Your task to perform on an android device: check storage Image 0: 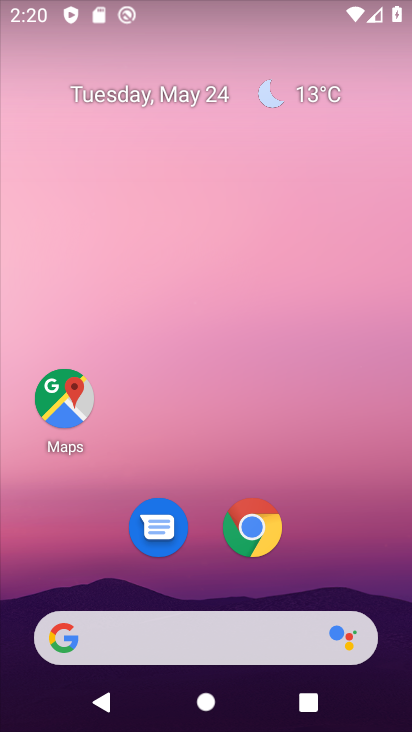
Step 0: drag from (311, 565) to (337, 87)
Your task to perform on an android device: check storage Image 1: 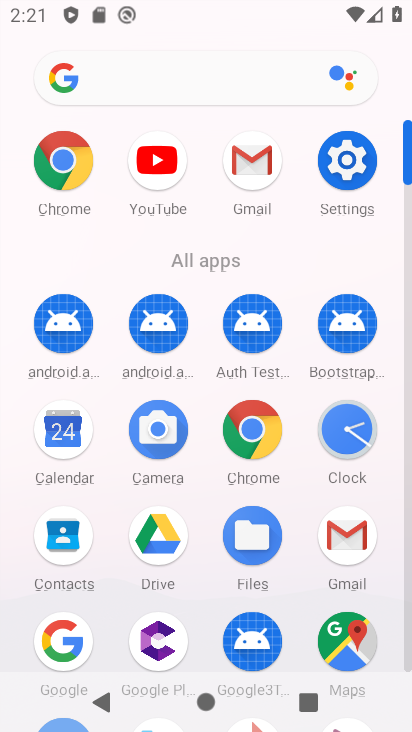
Step 1: click (344, 166)
Your task to perform on an android device: check storage Image 2: 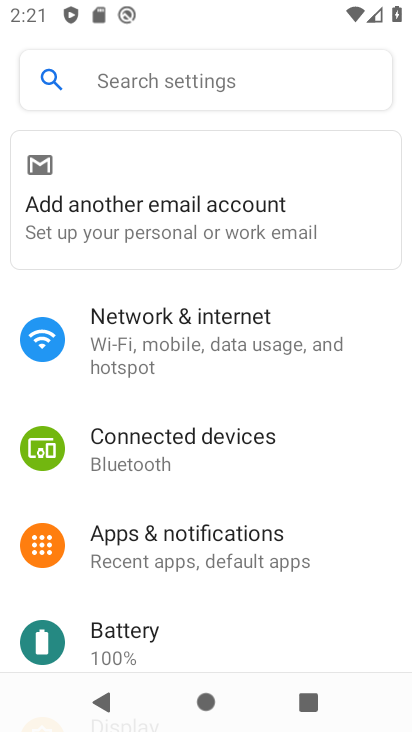
Step 2: drag from (151, 570) to (161, 281)
Your task to perform on an android device: check storage Image 3: 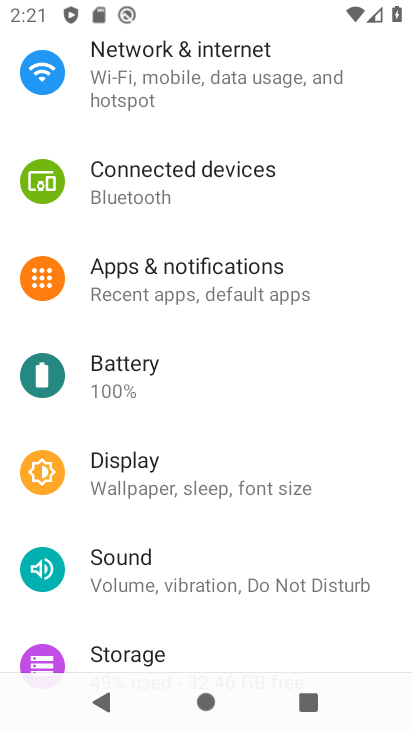
Step 3: click (149, 651)
Your task to perform on an android device: check storage Image 4: 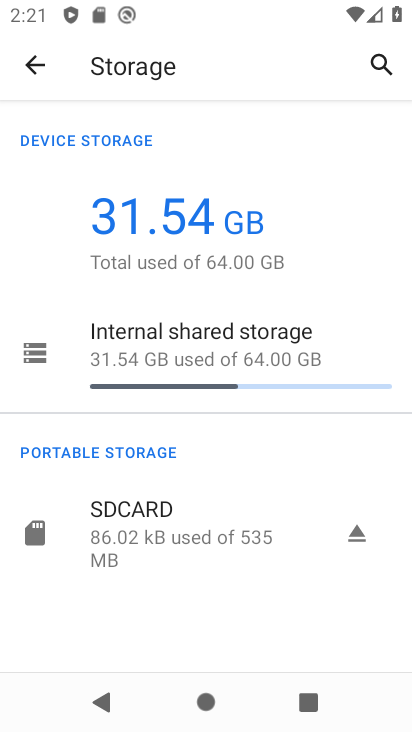
Step 4: task complete